Your task to perform on an android device: set default search engine in the chrome app Image 0: 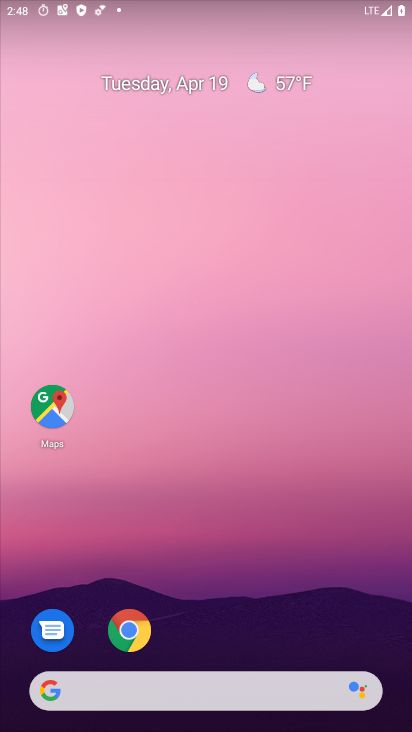
Step 0: click (135, 633)
Your task to perform on an android device: set default search engine in the chrome app Image 1: 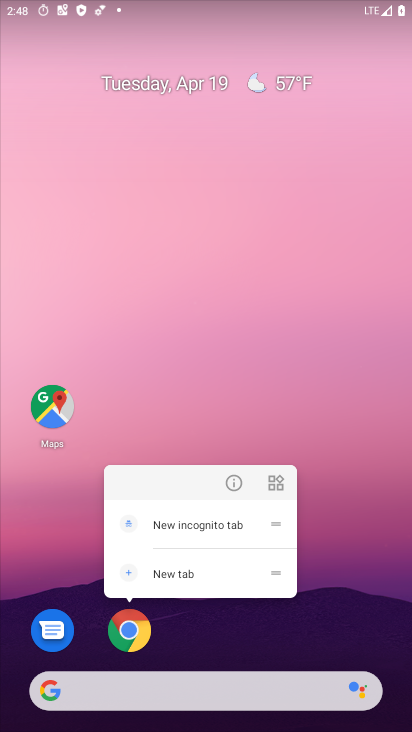
Step 1: click (122, 632)
Your task to perform on an android device: set default search engine in the chrome app Image 2: 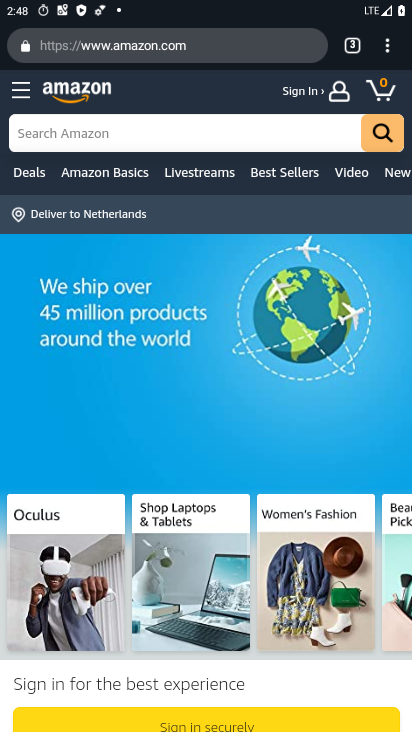
Step 2: click (383, 50)
Your task to perform on an android device: set default search engine in the chrome app Image 3: 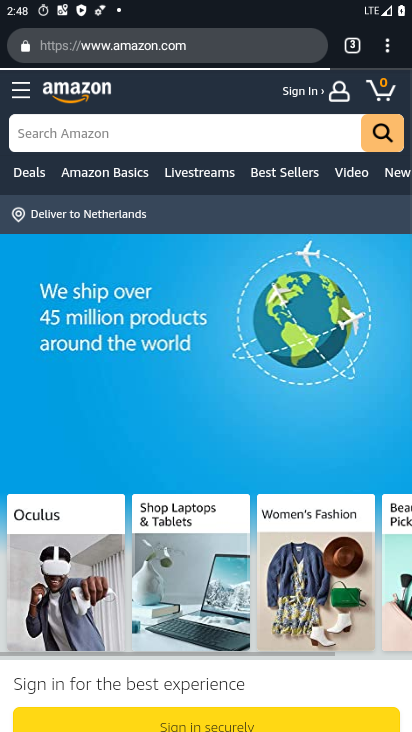
Step 3: click (383, 50)
Your task to perform on an android device: set default search engine in the chrome app Image 4: 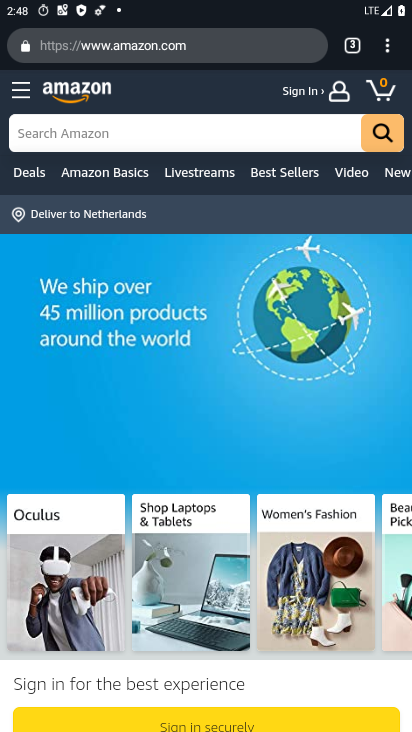
Step 4: click (383, 50)
Your task to perform on an android device: set default search engine in the chrome app Image 5: 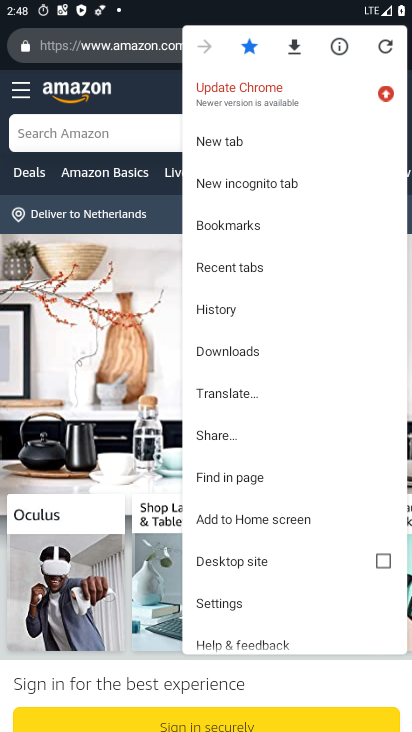
Step 5: click (268, 596)
Your task to perform on an android device: set default search engine in the chrome app Image 6: 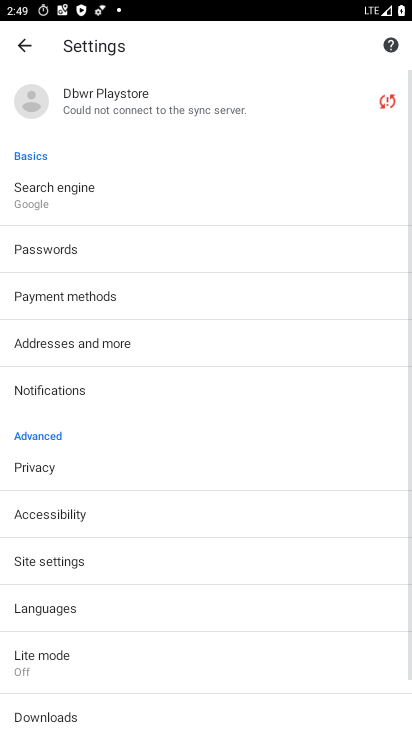
Step 6: click (127, 204)
Your task to perform on an android device: set default search engine in the chrome app Image 7: 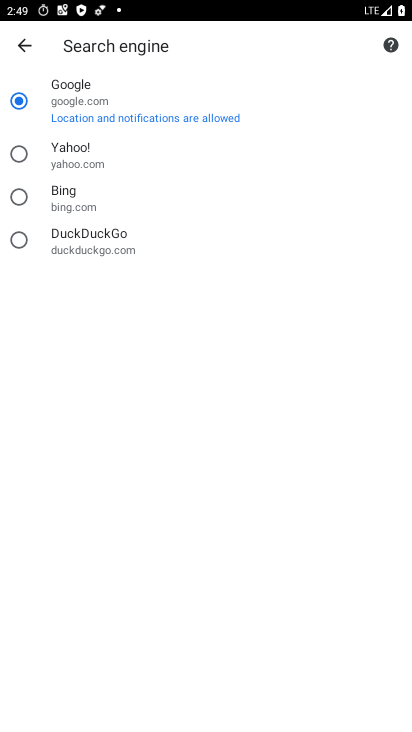
Step 7: click (122, 88)
Your task to perform on an android device: set default search engine in the chrome app Image 8: 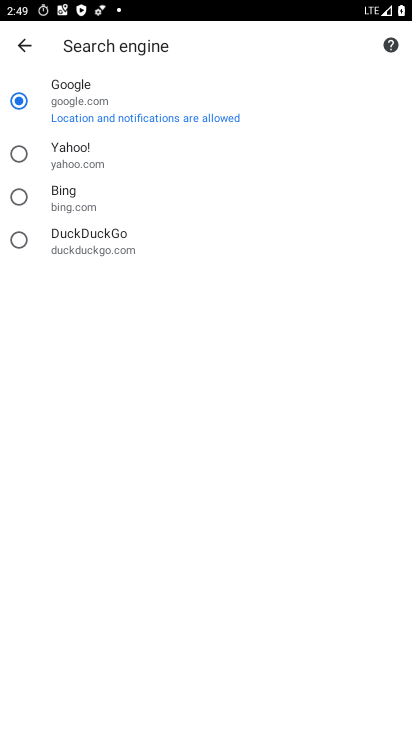
Step 8: task complete